Your task to perform on an android device: Clear all items from cart on newegg. Add "razer naga" to the cart on newegg, then select checkout. Image 0: 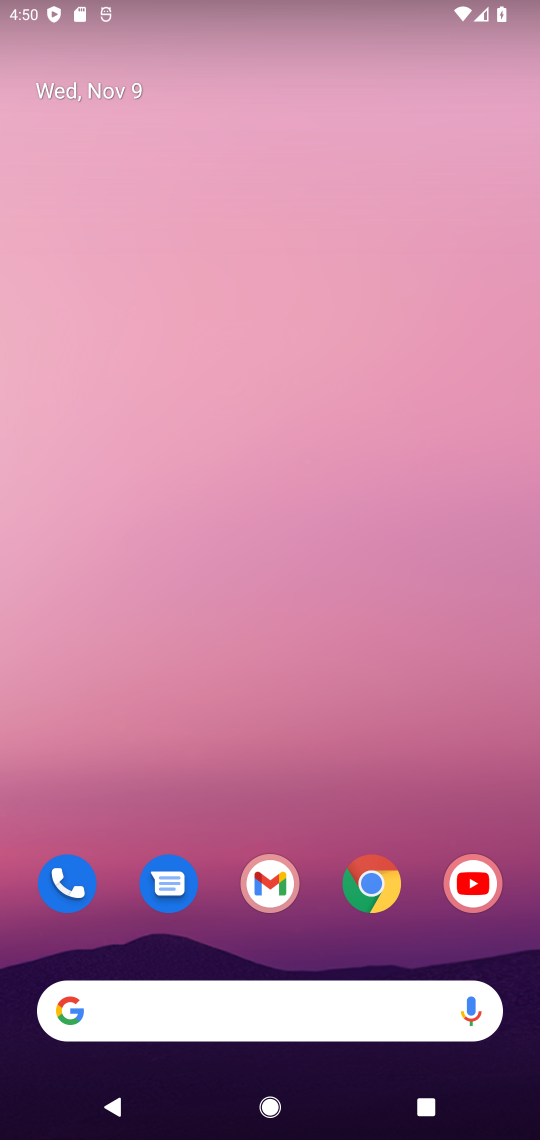
Step 0: click (375, 874)
Your task to perform on an android device: Clear all items from cart on newegg. Add "razer naga" to the cart on newegg, then select checkout. Image 1: 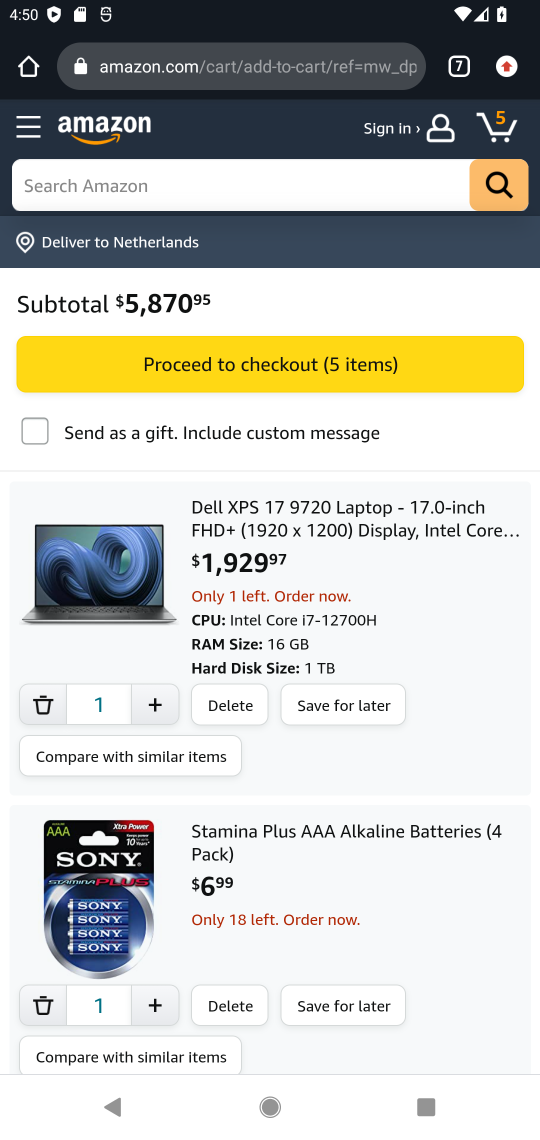
Step 1: click (470, 68)
Your task to perform on an android device: Clear all items from cart on newegg. Add "razer naga" to the cart on newegg, then select checkout. Image 2: 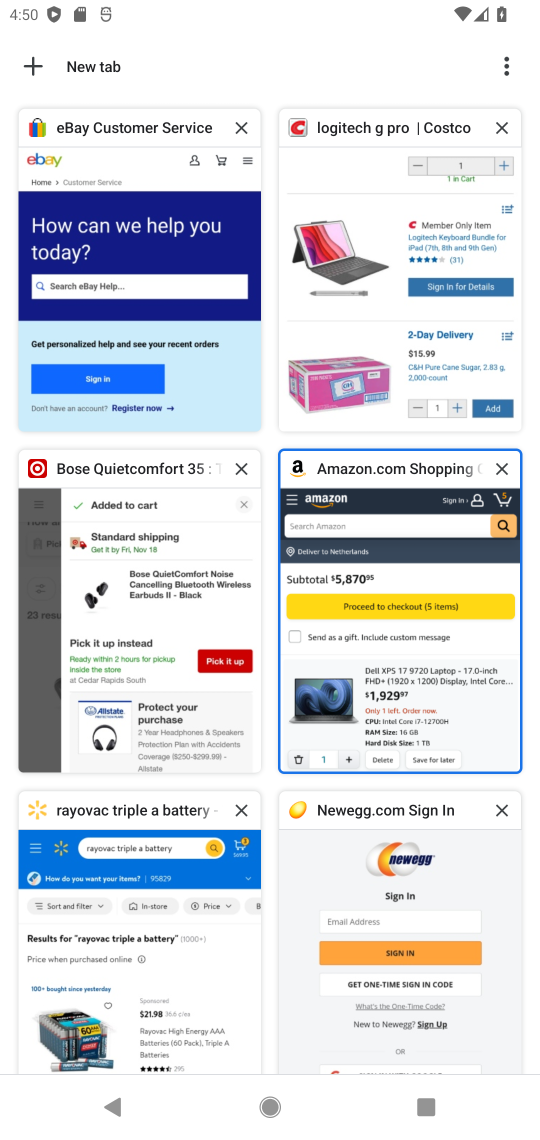
Step 2: click (391, 917)
Your task to perform on an android device: Clear all items from cart on newegg. Add "razer naga" to the cart on newegg, then select checkout. Image 3: 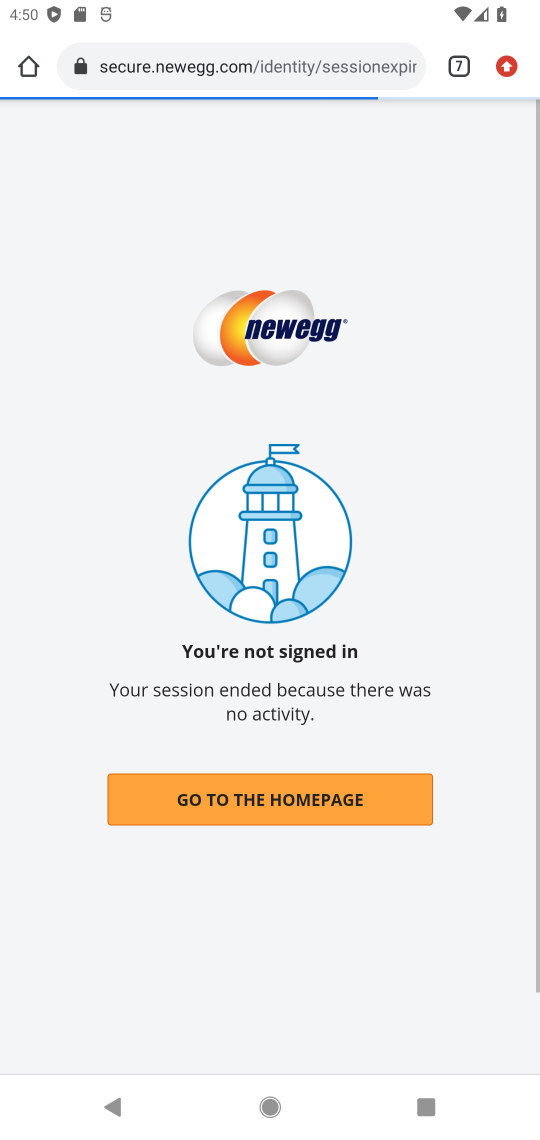
Step 3: press back button
Your task to perform on an android device: Clear all items from cart on newegg. Add "razer naga" to the cart on newegg, then select checkout. Image 4: 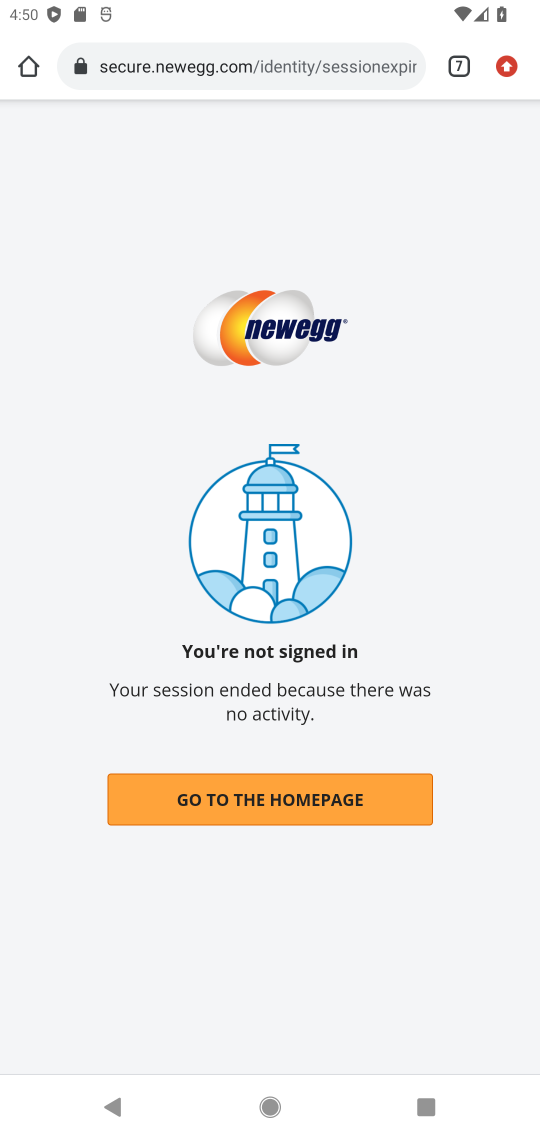
Step 4: click (248, 795)
Your task to perform on an android device: Clear all items from cart on newegg. Add "razer naga" to the cart on newegg, then select checkout. Image 5: 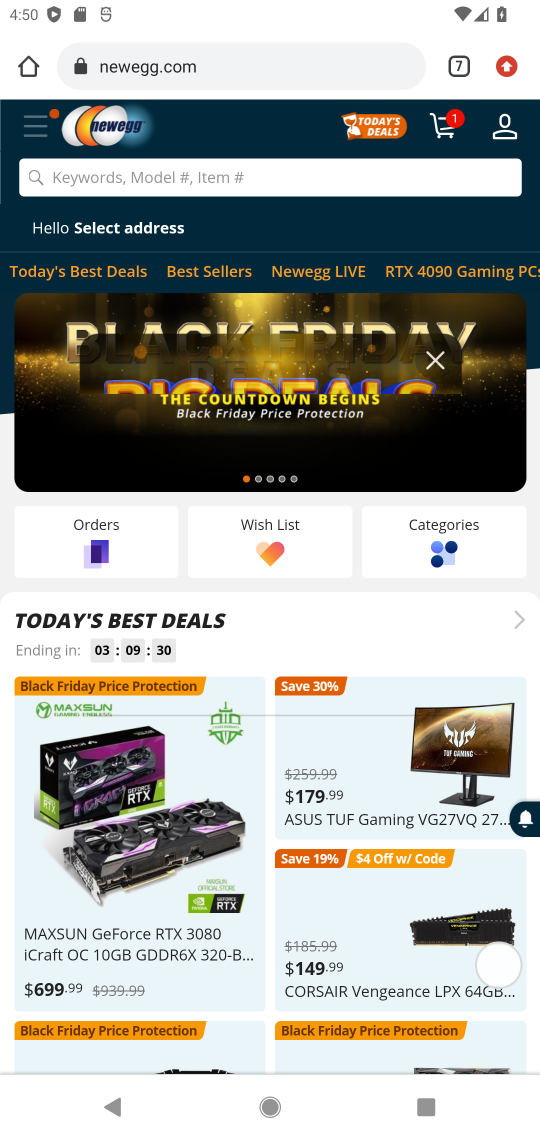
Step 5: click (449, 129)
Your task to perform on an android device: Clear all items from cart on newegg. Add "razer naga" to the cart on newegg, then select checkout. Image 6: 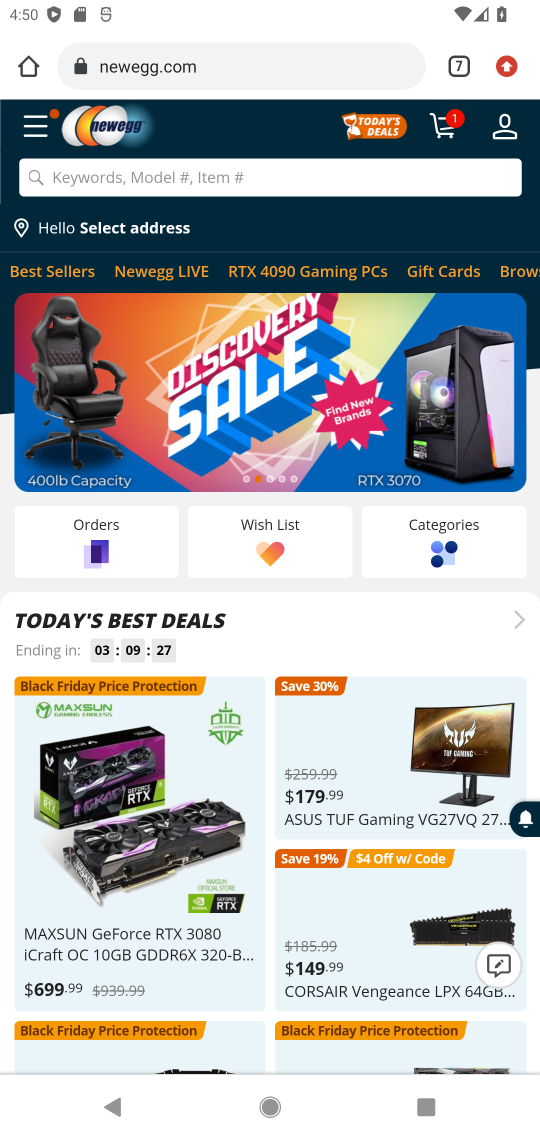
Step 6: click (449, 129)
Your task to perform on an android device: Clear all items from cart on newegg. Add "razer naga" to the cart on newegg, then select checkout. Image 7: 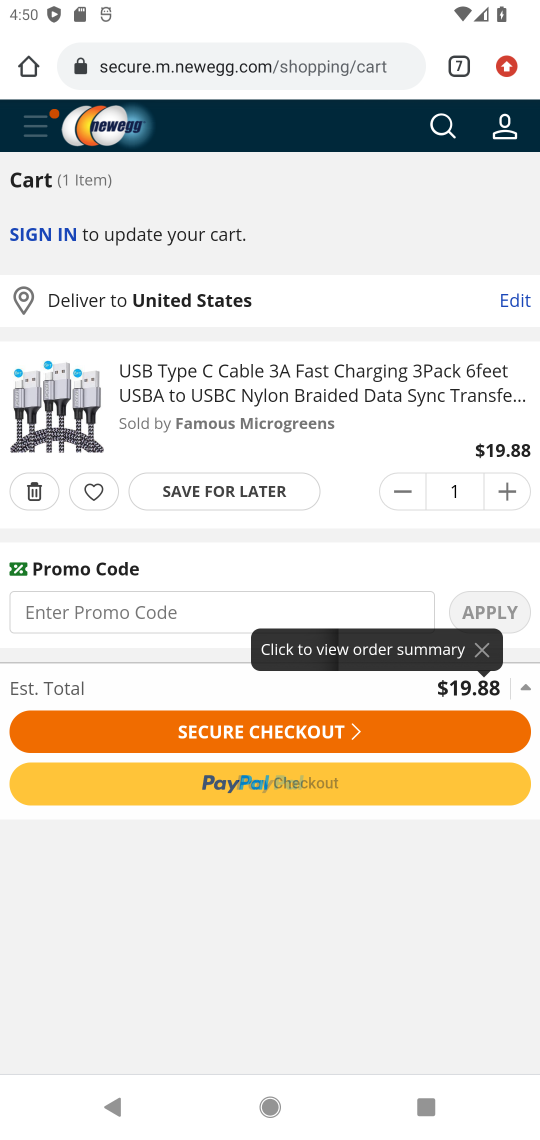
Step 7: click (36, 496)
Your task to perform on an android device: Clear all items from cart on newegg. Add "razer naga" to the cart on newegg, then select checkout. Image 8: 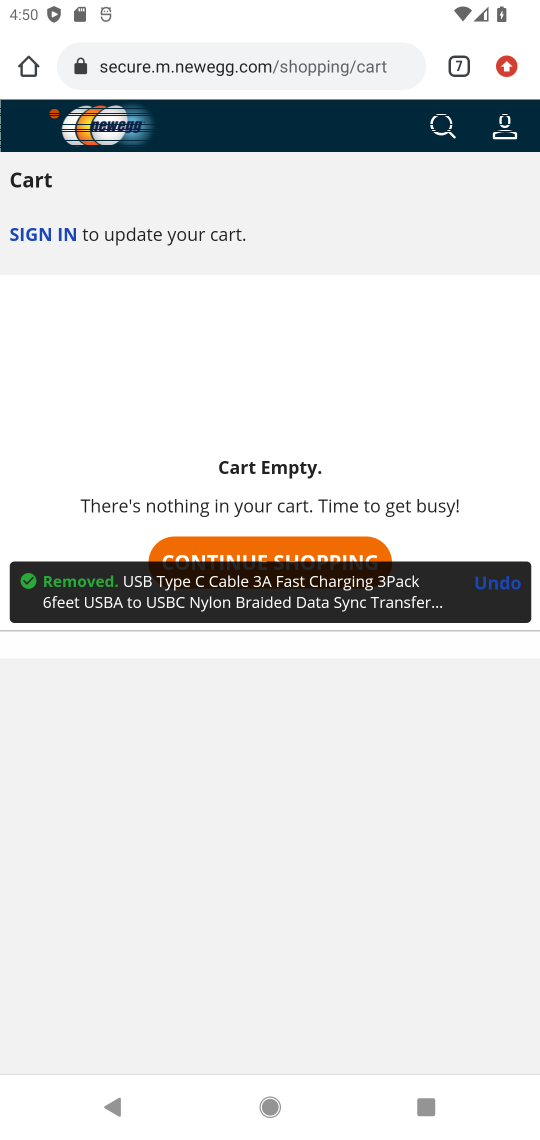
Step 8: click (437, 128)
Your task to perform on an android device: Clear all items from cart on newegg. Add "razer naga" to the cart on newegg, then select checkout. Image 9: 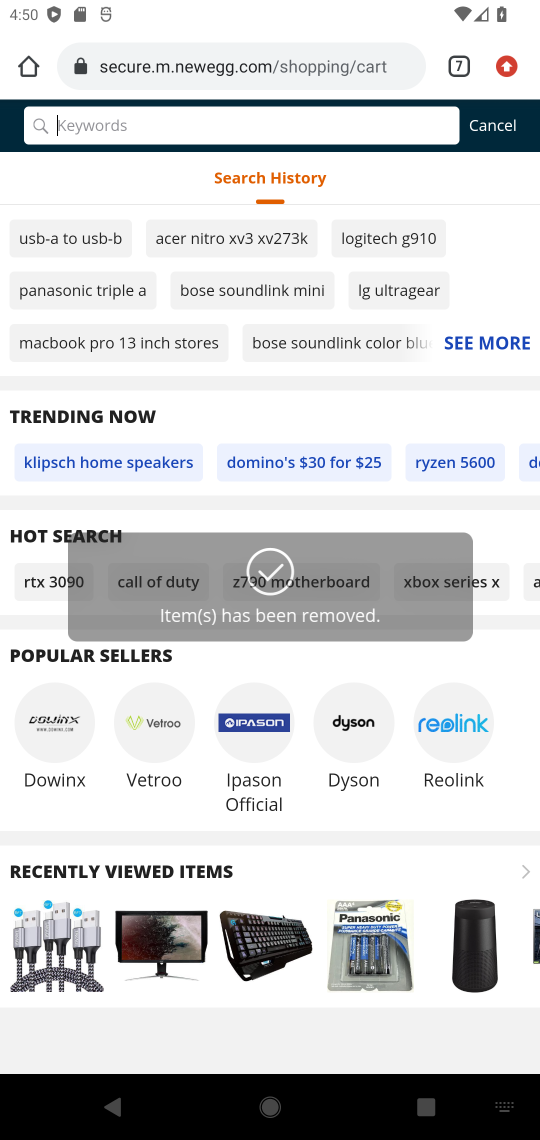
Step 9: type "razer naga"
Your task to perform on an android device: Clear all items from cart on newegg. Add "razer naga" to the cart on newegg, then select checkout. Image 10: 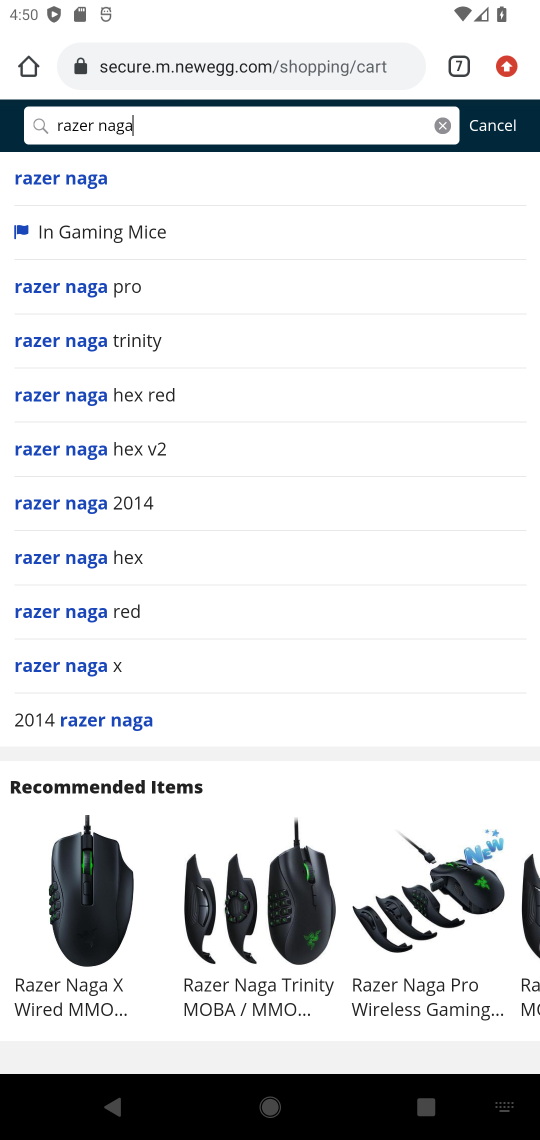
Step 10: click (42, 178)
Your task to perform on an android device: Clear all items from cart on newegg. Add "razer naga" to the cart on newegg, then select checkout. Image 11: 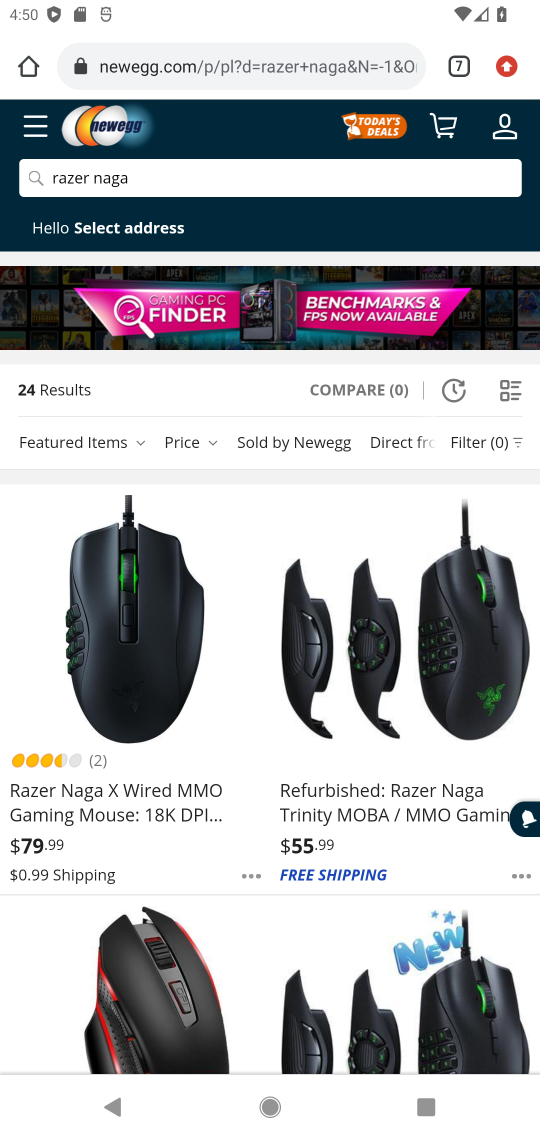
Step 11: click (51, 712)
Your task to perform on an android device: Clear all items from cart on newegg. Add "razer naga" to the cart on newegg, then select checkout. Image 12: 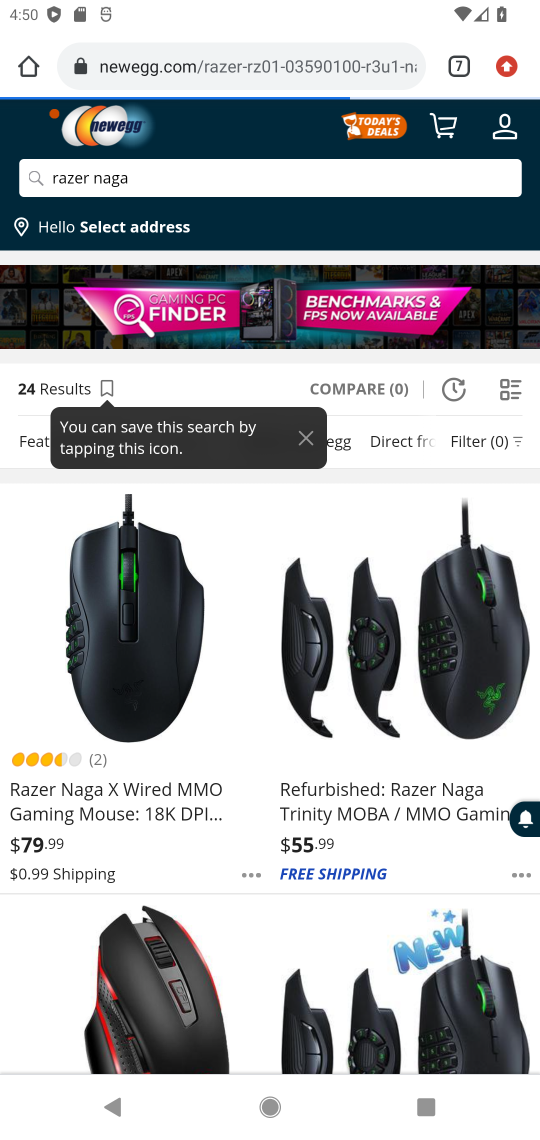
Step 12: click (47, 801)
Your task to perform on an android device: Clear all items from cart on newegg. Add "razer naga" to the cart on newegg, then select checkout. Image 13: 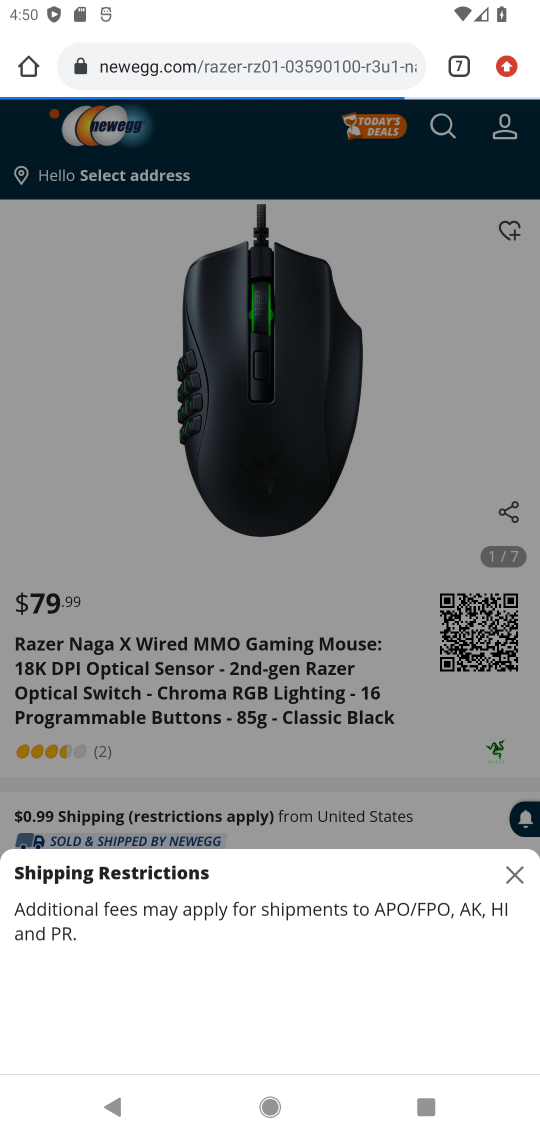
Step 13: click (245, 1044)
Your task to perform on an android device: Clear all items from cart on newegg. Add "razer naga" to the cart on newegg, then select checkout. Image 14: 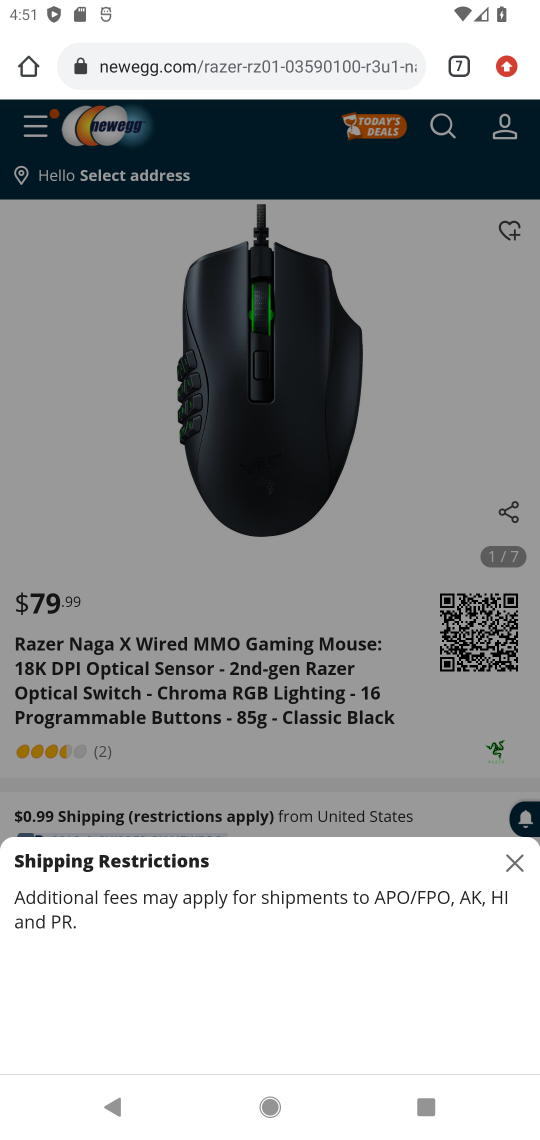
Step 14: click (513, 868)
Your task to perform on an android device: Clear all items from cart on newegg. Add "razer naga" to the cart on newegg, then select checkout. Image 15: 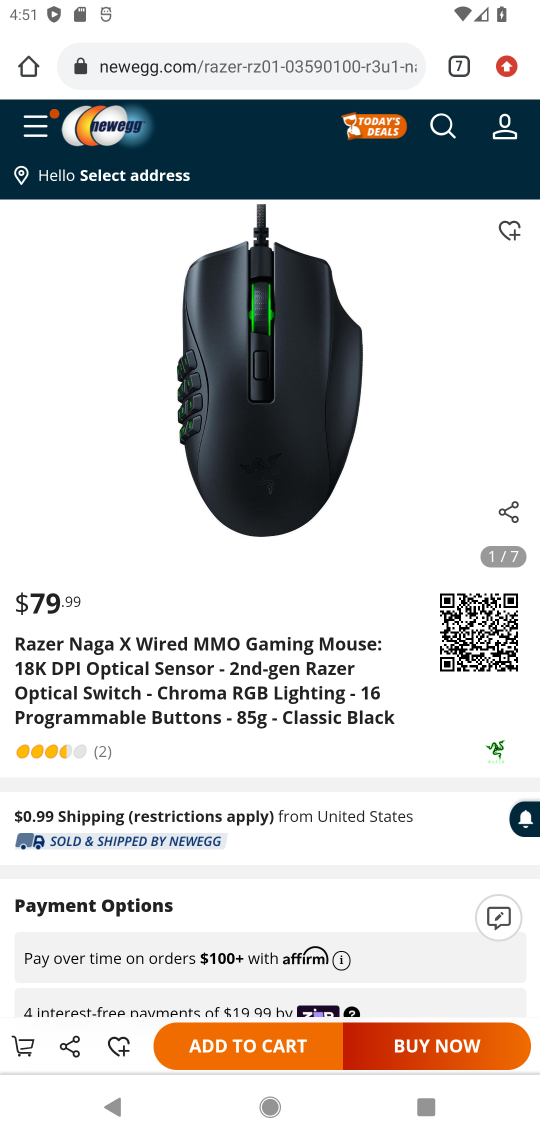
Step 15: click (190, 1047)
Your task to perform on an android device: Clear all items from cart on newegg. Add "razer naga" to the cart on newegg, then select checkout. Image 16: 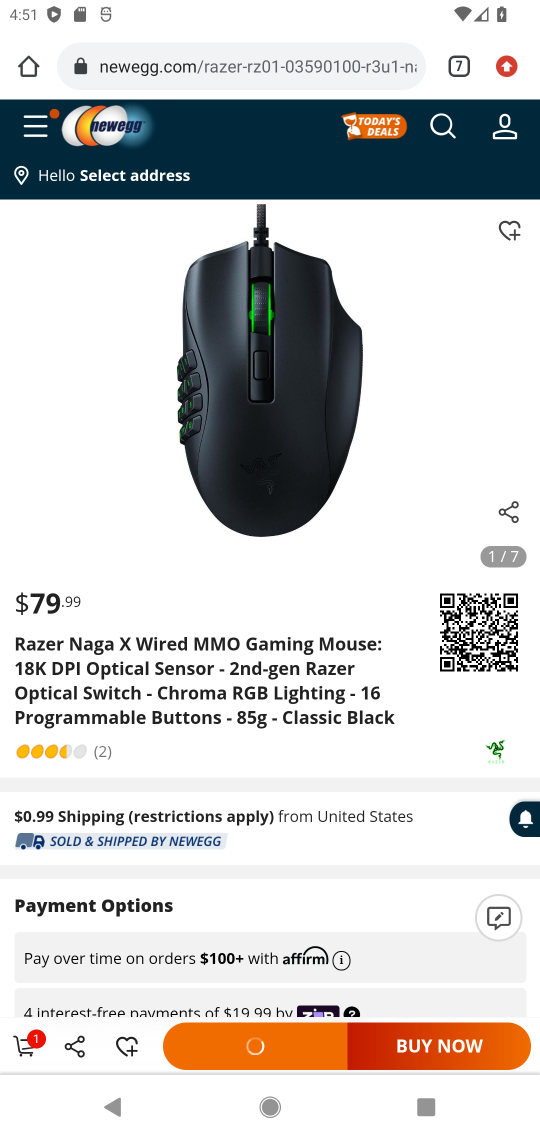
Step 16: click (16, 1046)
Your task to perform on an android device: Clear all items from cart on newegg. Add "razer naga" to the cart on newegg, then select checkout. Image 17: 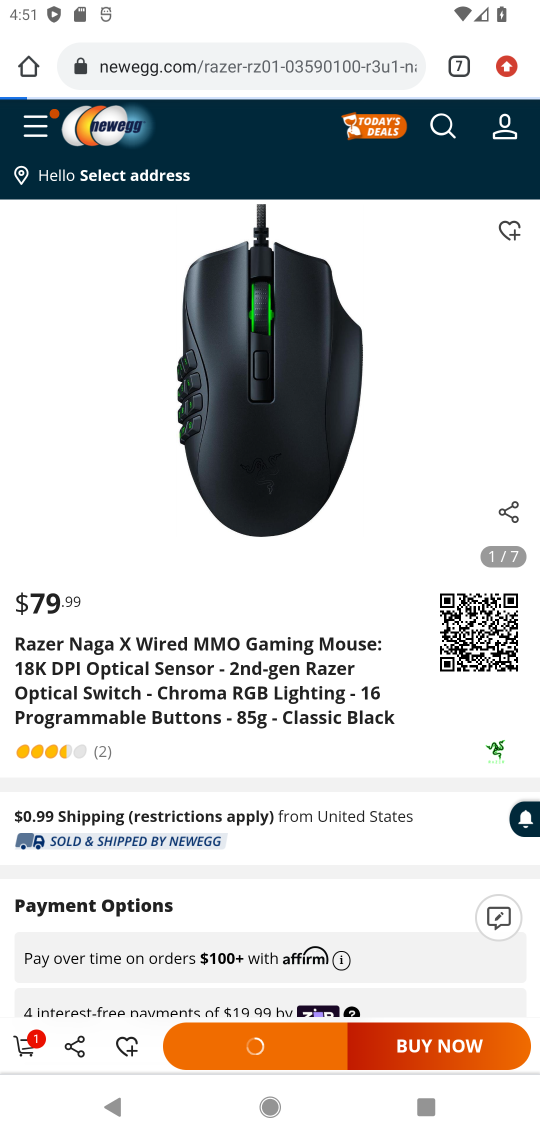
Step 17: click (16, 1046)
Your task to perform on an android device: Clear all items from cart on newegg. Add "razer naga" to the cart on newegg, then select checkout. Image 18: 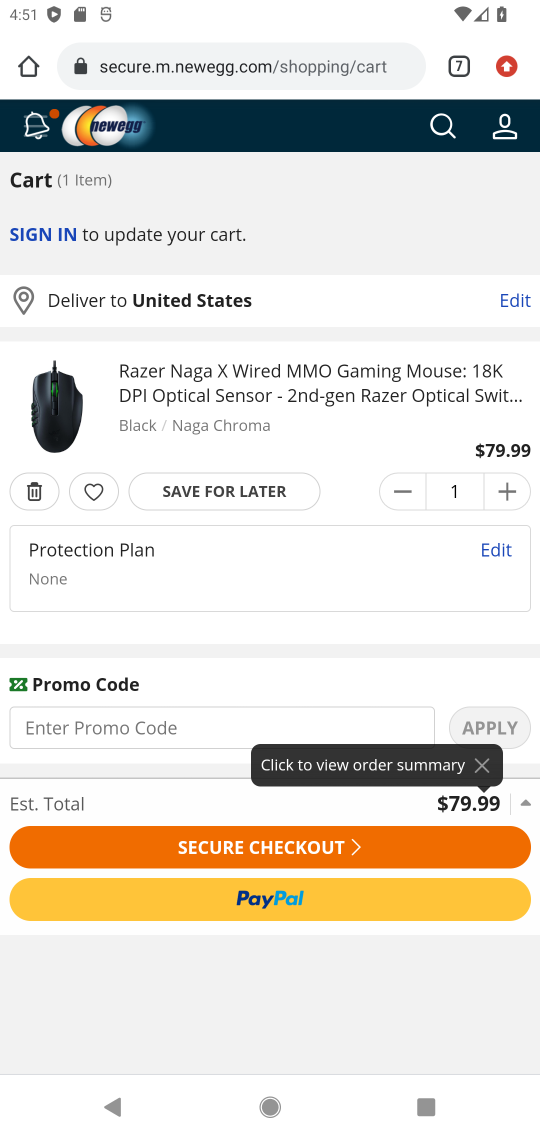
Step 18: click (202, 845)
Your task to perform on an android device: Clear all items from cart on newegg. Add "razer naga" to the cart on newegg, then select checkout. Image 19: 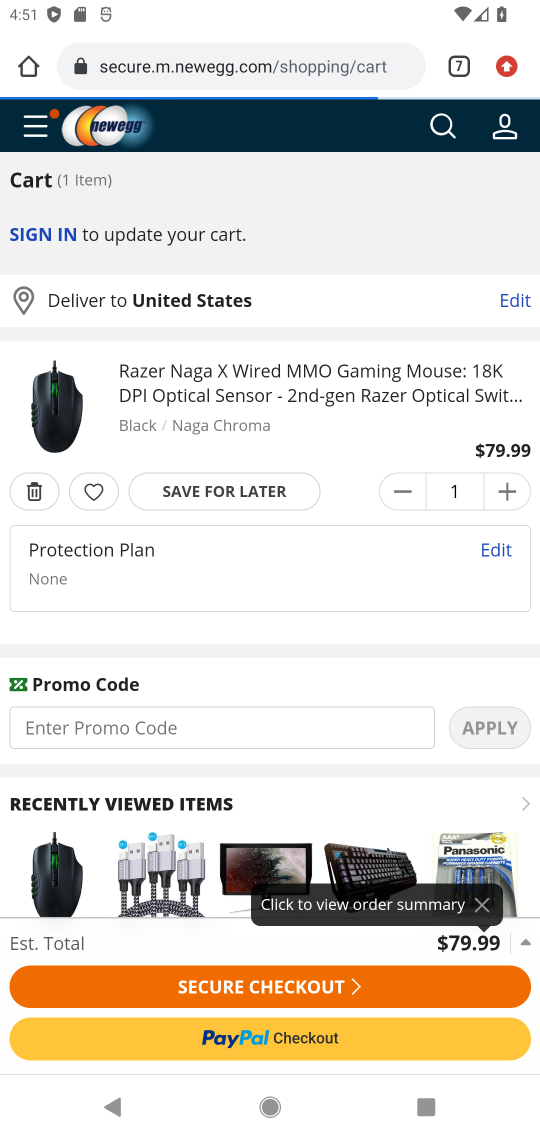
Step 19: task complete